Your task to perform on an android device: Go to internet settings Image 0: 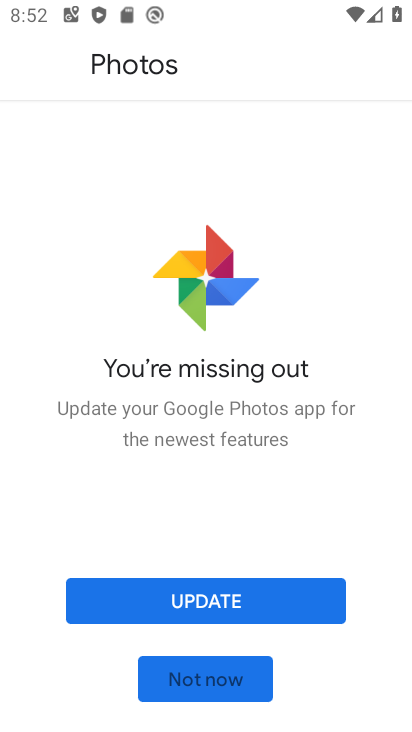
Step 0: press home button
Your task to perform on an android device: Go to internet settings Image 1: 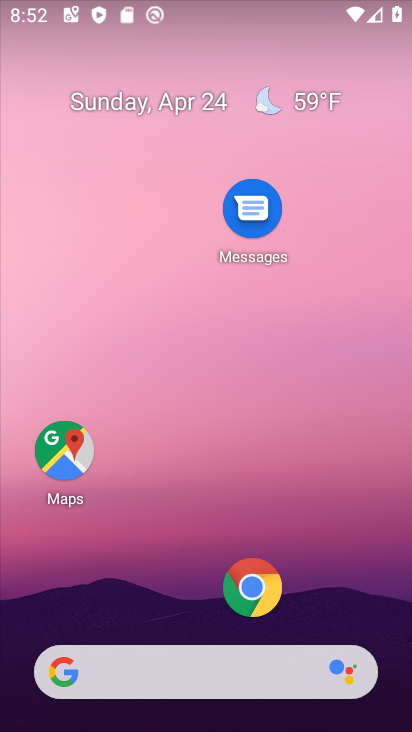
Step 1: drag from (171, 612) to (233, 11)
Your task to perform on an android device: Go to internet settings Image 2: 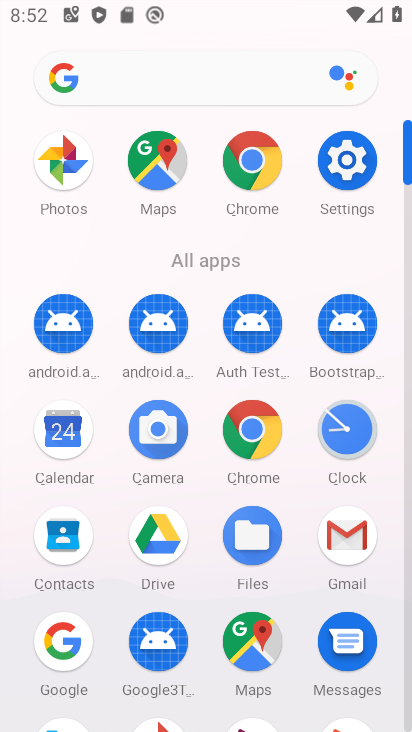
Step 2: click (359, 167)
Your task to perform on an android device: Go to internet settings Image 3: 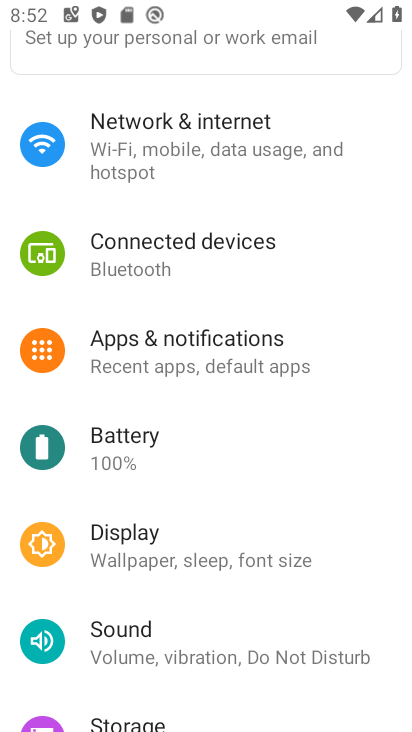
Step 3: click (230, 171)
Your task to perform on an android device: Go to internet settings Image 4: 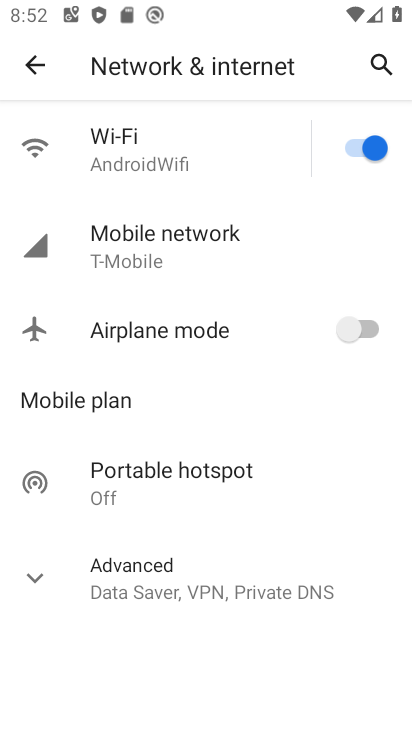
Step 4: task complete